Your task to perform on an android device: all mails in gmail Image 0: 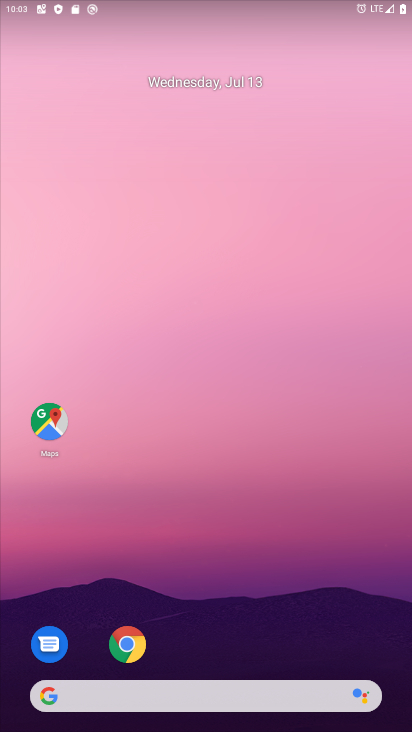
Step 0: drag from (217, 721) to (214, 184)
Your task to perform on an android device: all mails in gmail Image 1: 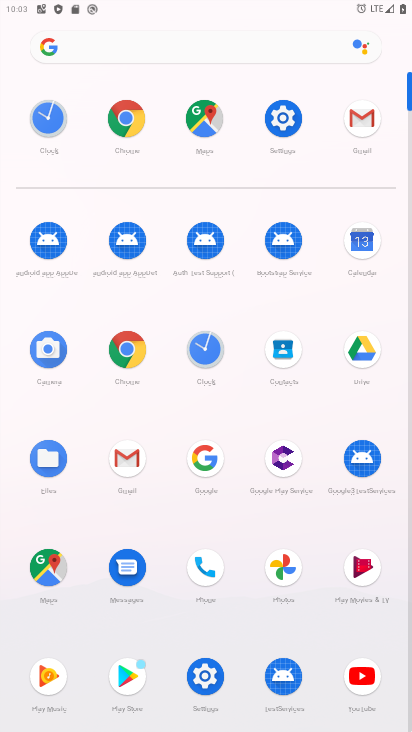
Step 1: click (128, 452)
Your task to perform on an android device: all mails in gmail Image 2: 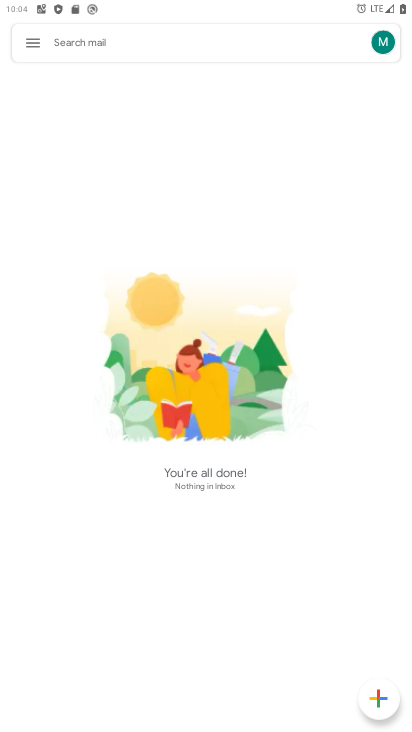
Step 2: click (34, 40)
Your task to perform on an android device: all mails in gmail Image 3: 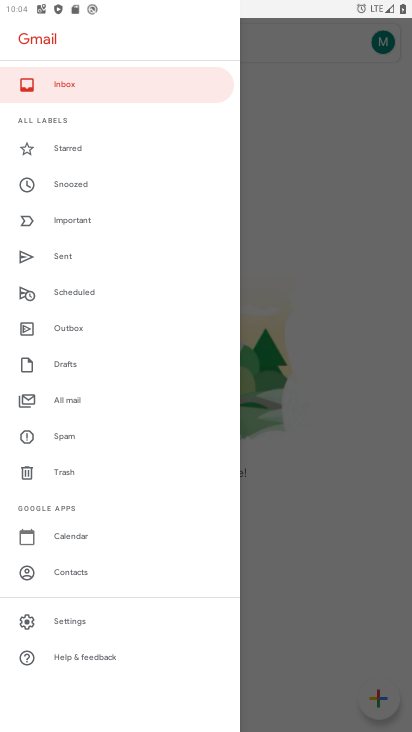
Step 3: click (76, 396)
Your task to perform on an android device: all mails in gmail Image 4: 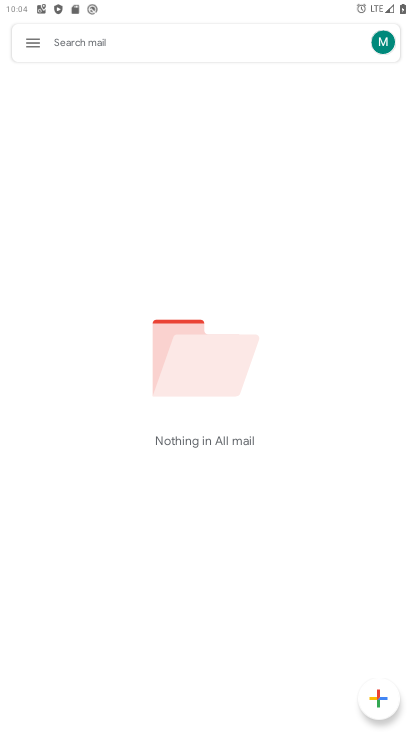
Step 4: task complete